Your task to perform on an android device: Go to Wikipedia Image 0: 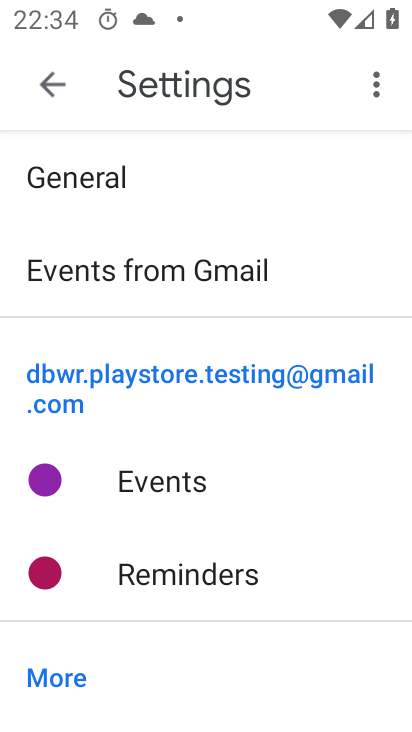
Step 0: press home button
Your task to perform on an android device: Go to Wikipedia Image 1: 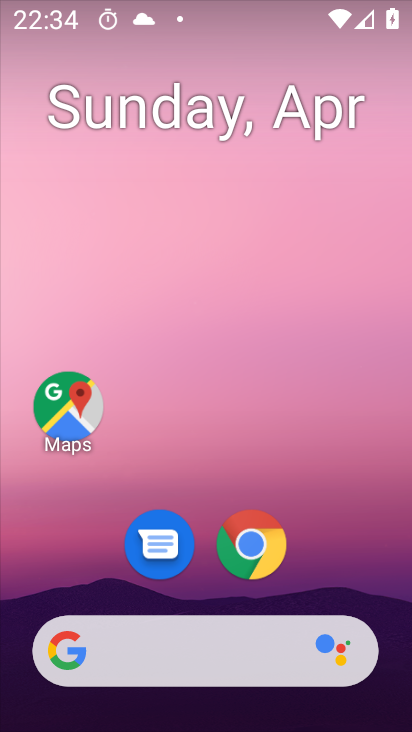
Step 1: drag from (291, 547) to (298, 211)
Your task to perform on an android device: Go to Wikipedia Image 2: 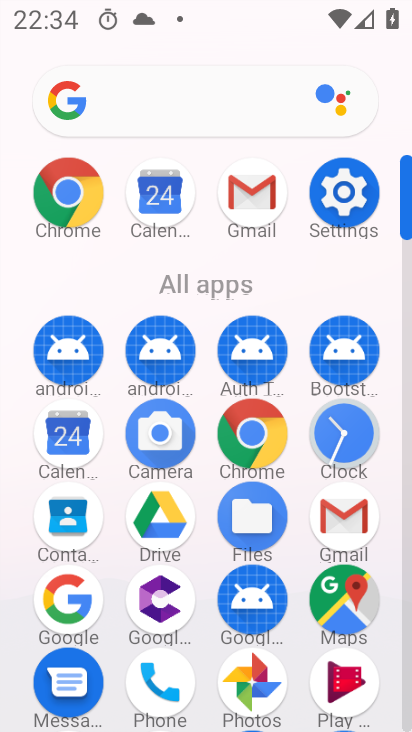
Step 2: click (254, 418)
Your task to perform on an android device: Go to Wikipedia Image 3: 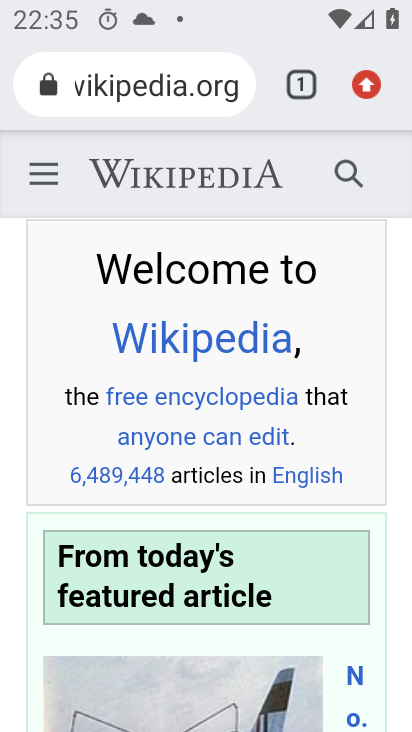
Step 3: task complete